Your task to perform on an android device: turn on the 24-hour format for clock Image 0: 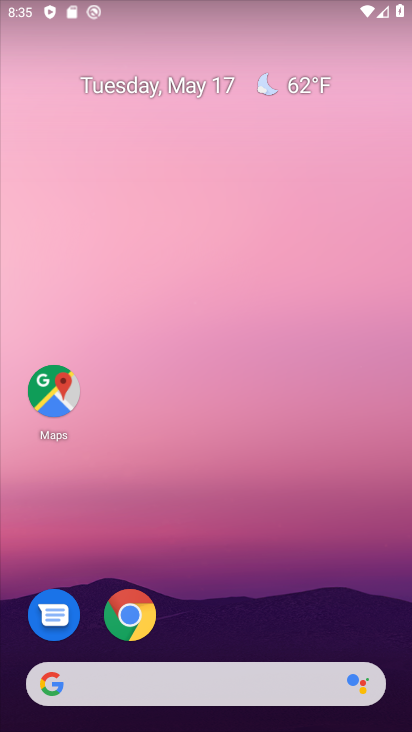
Step 0: drag from (258, 593) to (258, 36)
Your task to perform on an android device: turn on the 24-hour format for clock Image 1: 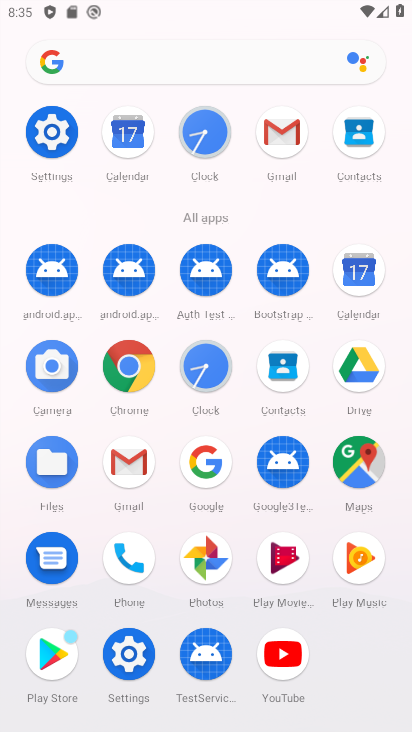
Step 1: click (212, 135)
Your task to perform on an android device: turn on the 24-hour format for clock Image 2: 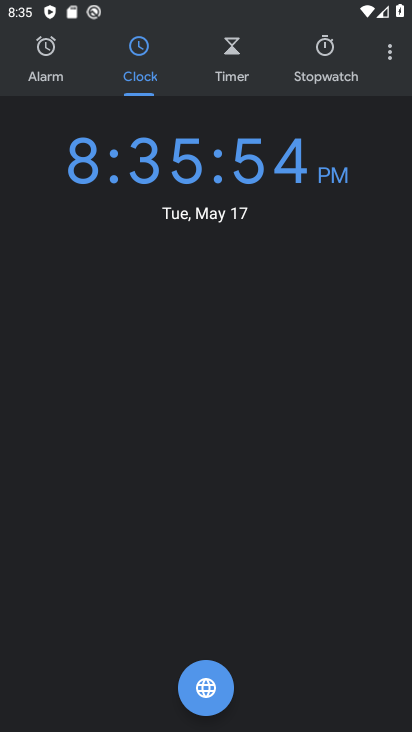
Step 2: click (392, 52)
Your task to perform on an android device: turn on the 24-hour format for clock Image 3: 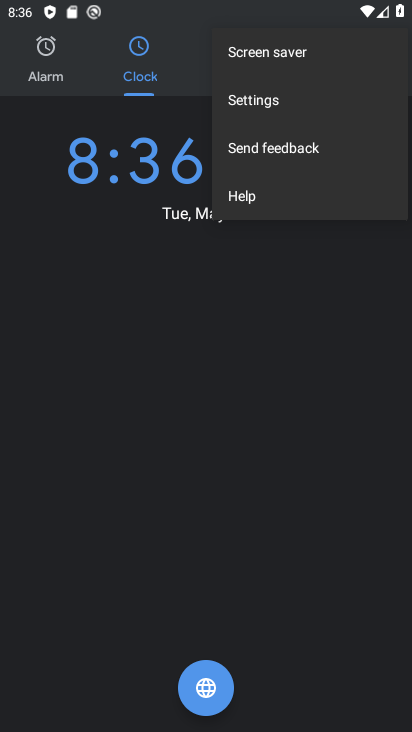
Step 3: click (262, 103)
Your task to perform on an android device: turn on the 24-hour format for clock Image 4: 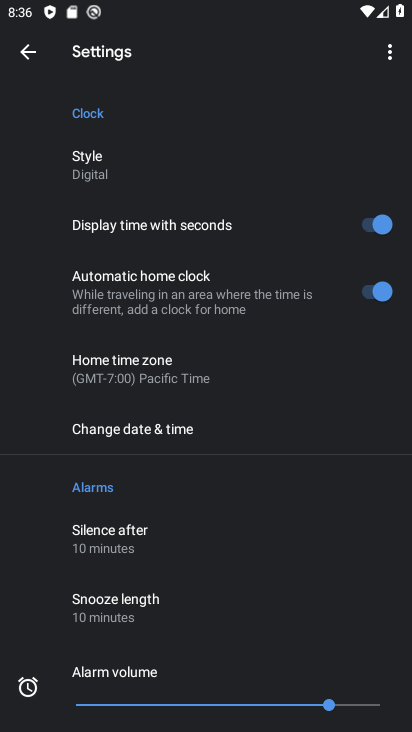
Step 4: click (157, 426)
Your task to perform on an android device: turn on the 24-hour format for clock Image 5: 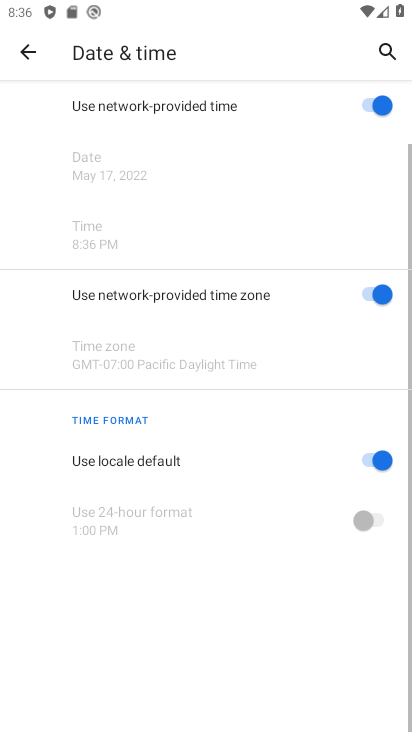
Step 5: drag from (203, 582) to (203, 209)
Your task to perform on an android device: turn on the 24-hour format for clock Image 6: 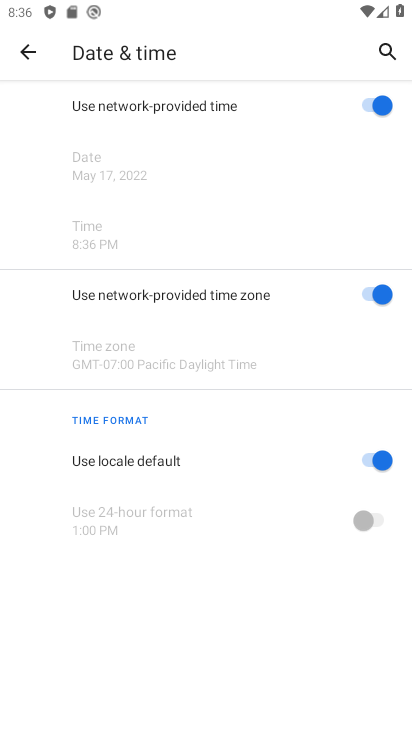
Step 6: click (374, 448)
Your task to perform on an android device: turn on the 24-hour format for clock Image 7: 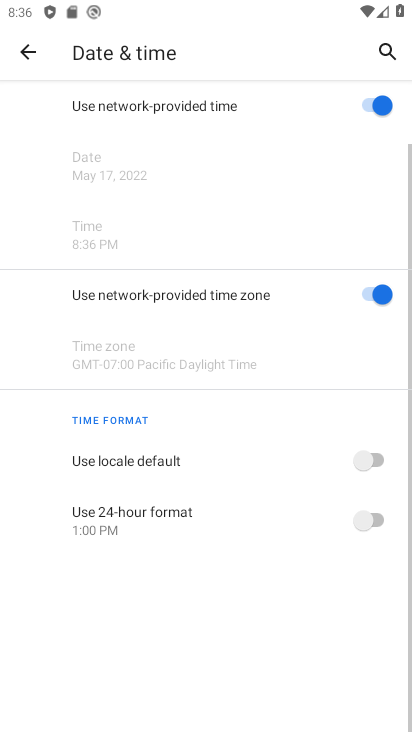
Step 7: click (358, 516)
Your task to perform on an android device: turn on the 24-hour format for clock Image 8: 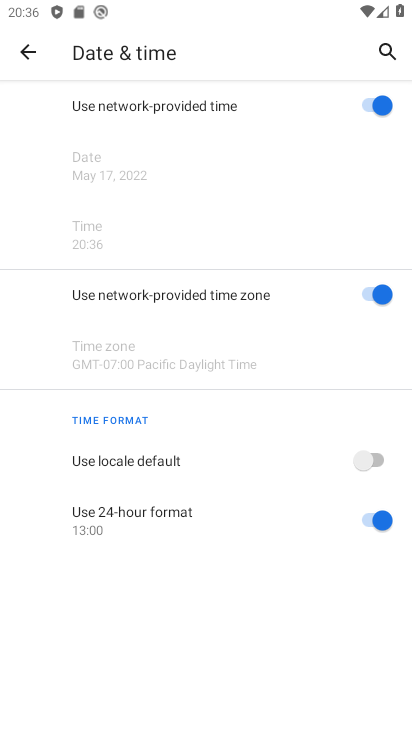
Step 8: task complete